Your task to perform on an android device: turn on data saver in the chrome app Image 0: 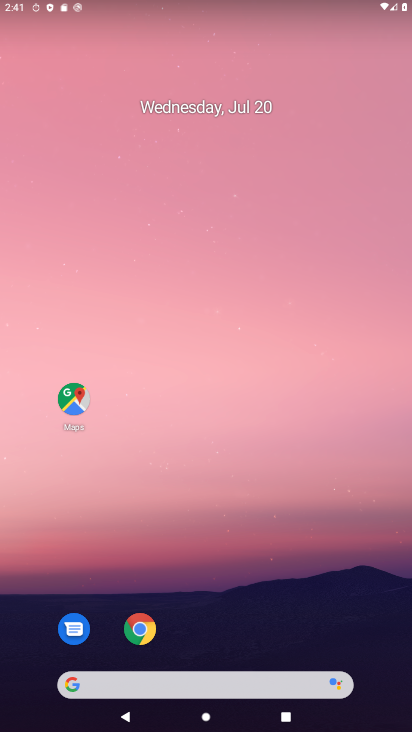
Step 0: press home button
Your task to perform on an android device: turn on data saver in the chrome app Image 1: 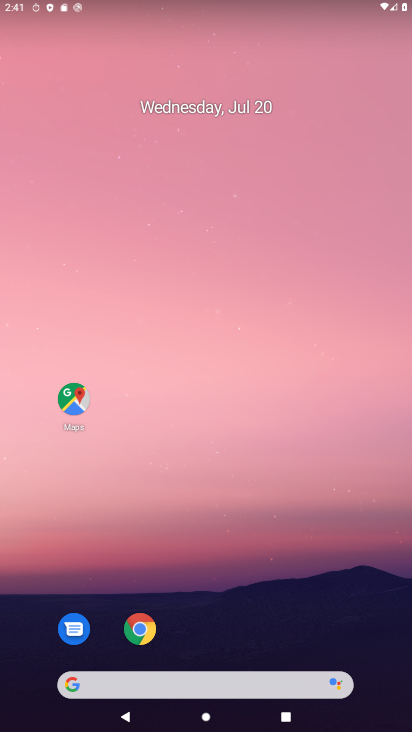
Step 1: click (140, 619)
Your task to perform on an android device: turn on data saver in the chrome app Image 2: 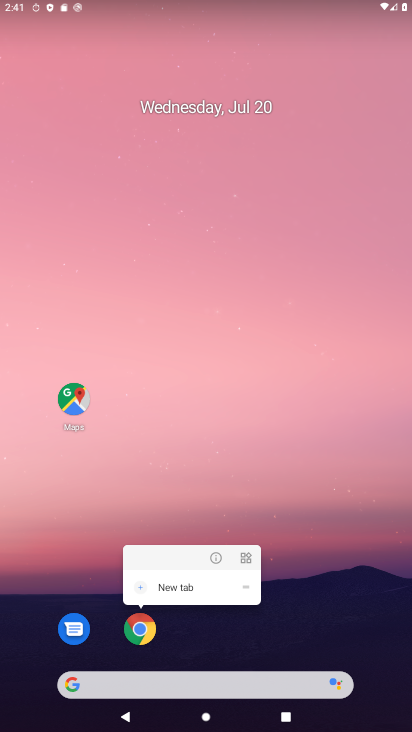
Step 2: click (140, 628)
Your task to perform on an android device: turn on data saver in the chrome app Image 3: 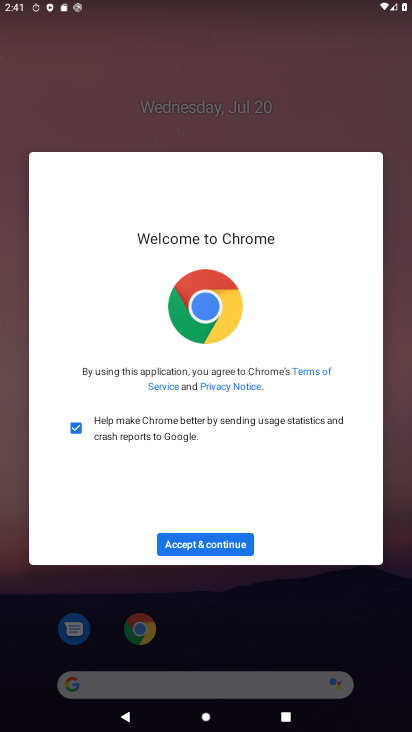
Step 3: click (196, 537)
Your task to perform on an android device: turn on data saver in the chrome app Image 4: 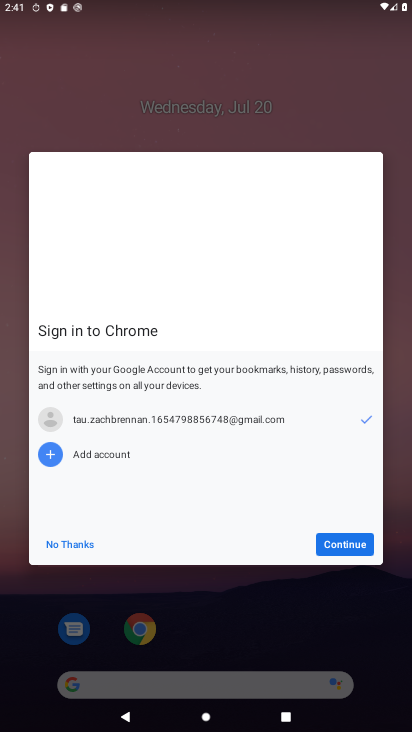
Step 4: click (345, 539)
Your task to perform on an android device: turn on data saver in the chrome app Image 5: 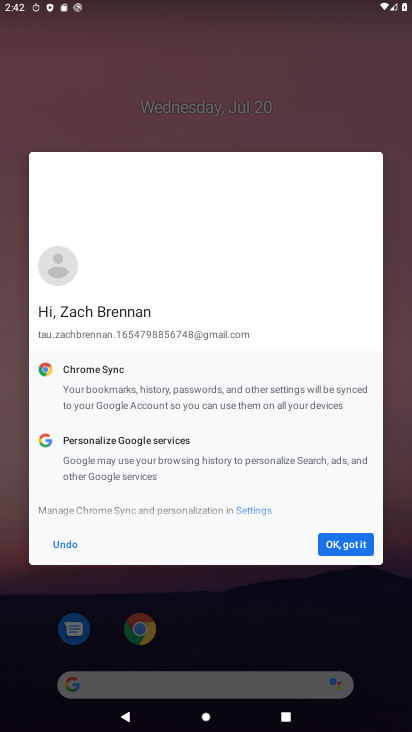
Step 5: click (349, 538)
Your task to perform on an android device: turn on data saver in the chrome app Image 6: 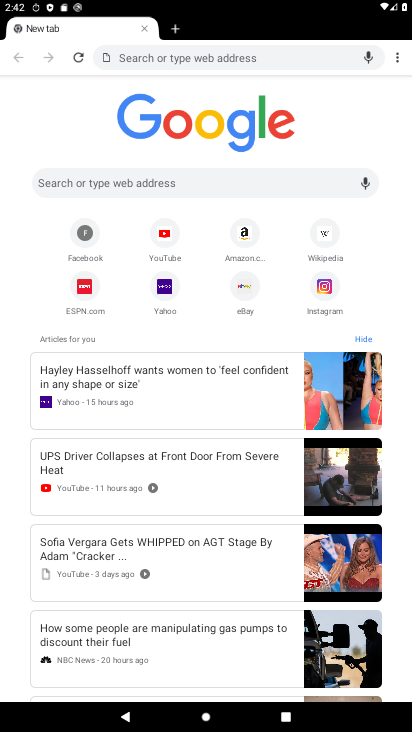
Step 6: click (396, 55)
Your task to perform on an android device: turn on data saver in the chrome app Image 7: 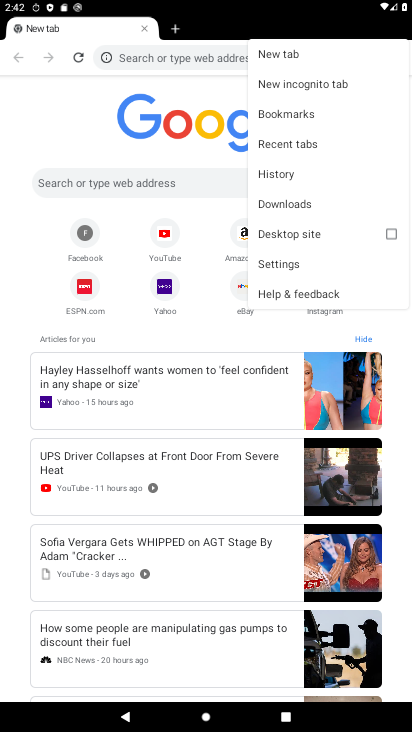
Step 7: click (305, 263)
Your task to perform on an android device: turn on data saver in the chrome app Image 8: 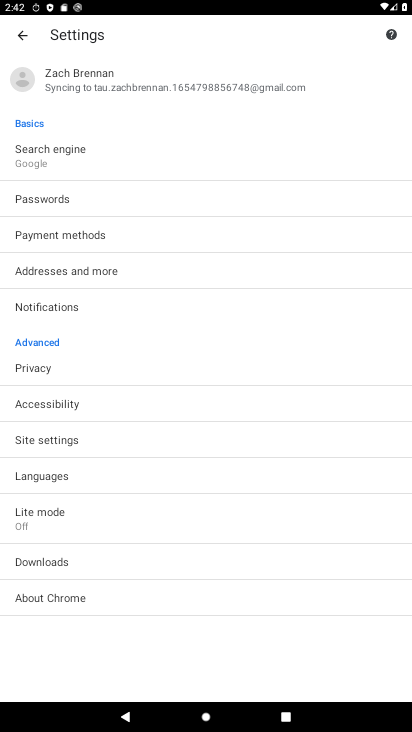
Step 8: click (56, 522)
Your task to perform on an android device: turn on data saver in the chrome app Image 9: 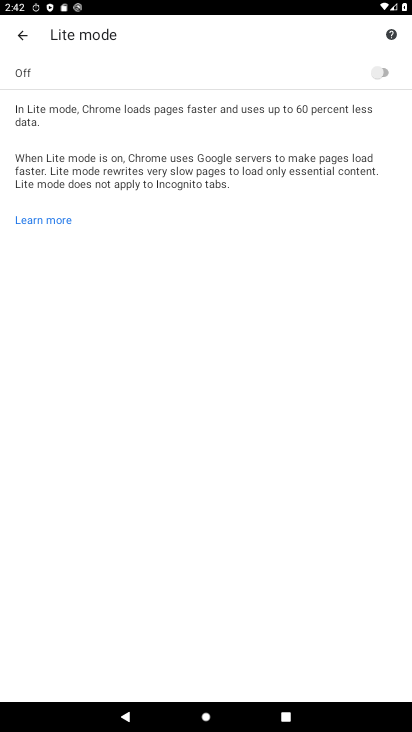
Step 9: click (387, 70)
Your task to perform on an android device: turn on data saver in the chrome app Image 10: 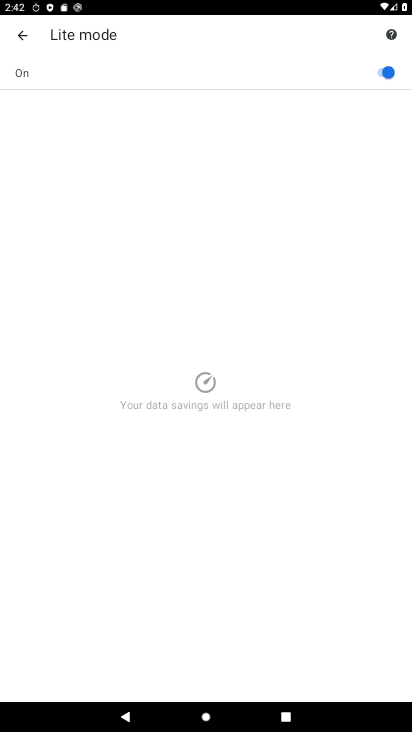
Step 10: task complete